Your task to perform on an android device: set default search engine in the chrome app Image 0: 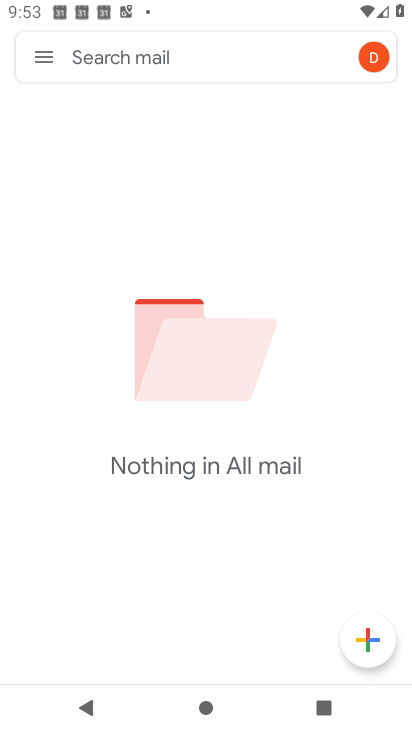
Step 0: press home button
Your task to perform on an android device: set default search engine in the chrome app Image 1: 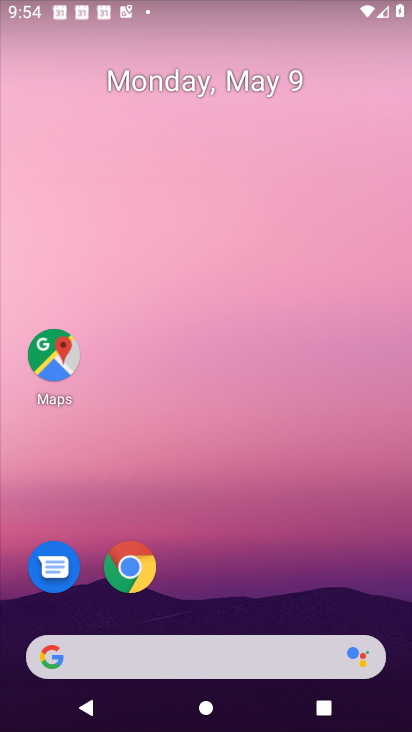
Step 1: click (140, 576)
Your task to perform on an android device: set default search engine in the chrome app Image 2: 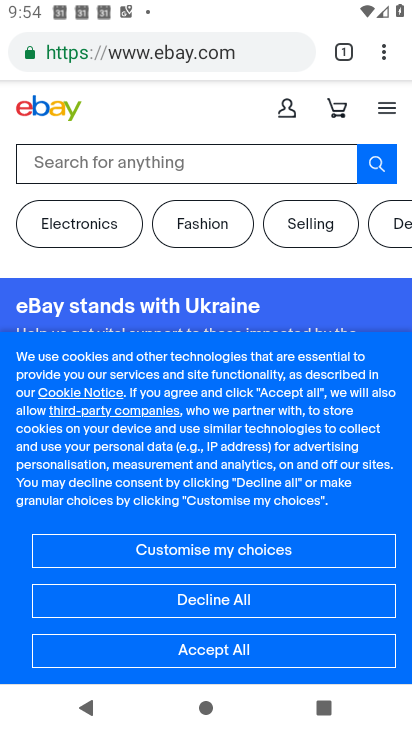
Step 2: click (379, 51)
Your task to perform on an android device: set default search engine in the chrome app Image 3: 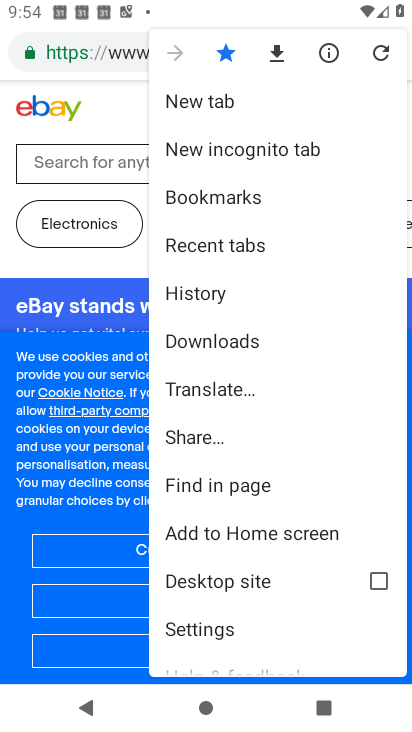
Step 3: click (243, 633)
Your task to perform on an android device: set default search engine in the chrome app Image 4: 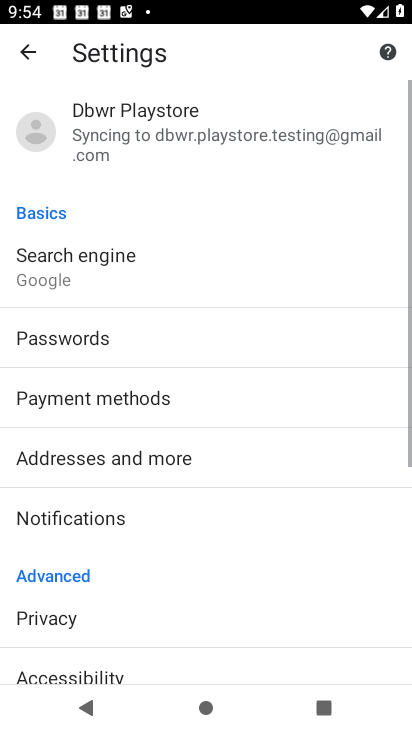
Step 4: click (78, 273)
Your task to perform on an android device: set default search engine in the chrome app Image 5: 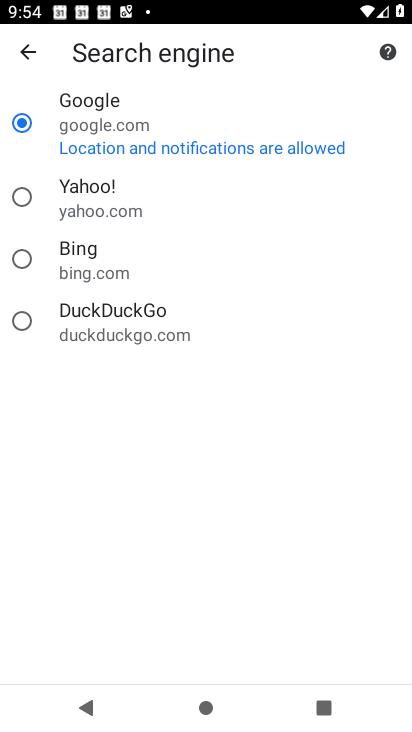
Step 5: click (74, 210)
Your task to perform on an android device: set default search engine in the chrome app Image 6: 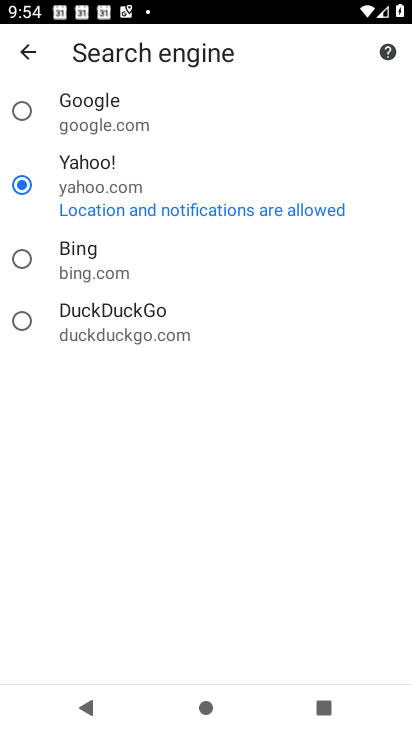
Step 6: task complete